Your task to perform on an android device: Turn off the flashlight Image 0: 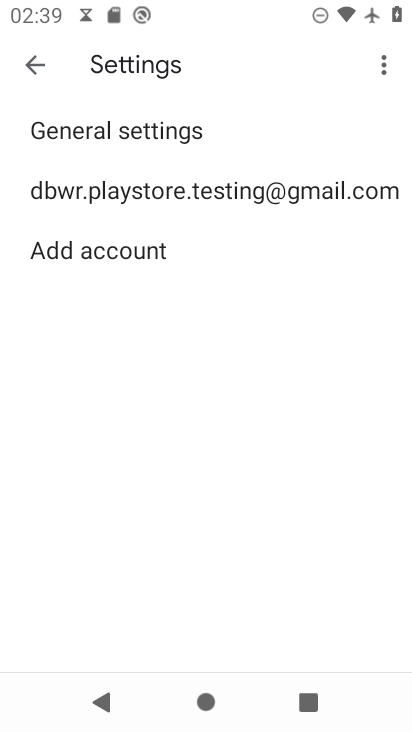
Step 0: press home button
Your task to perform on an android device: Turn off the flashlight Image 1: 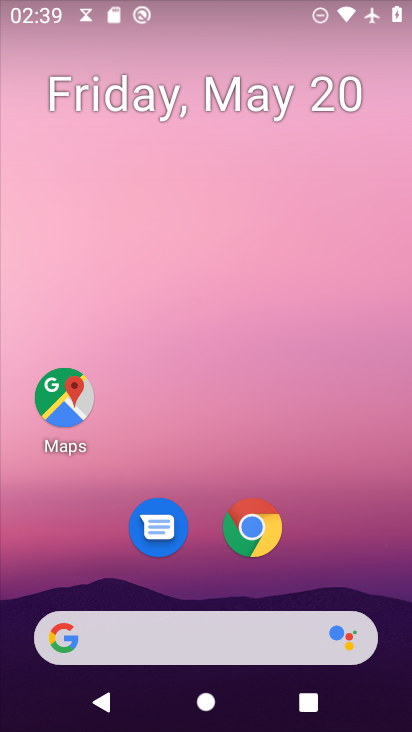
Step 1: task complete